Your task to perform on an android device: Show me popular videos on Youtube Image 0: 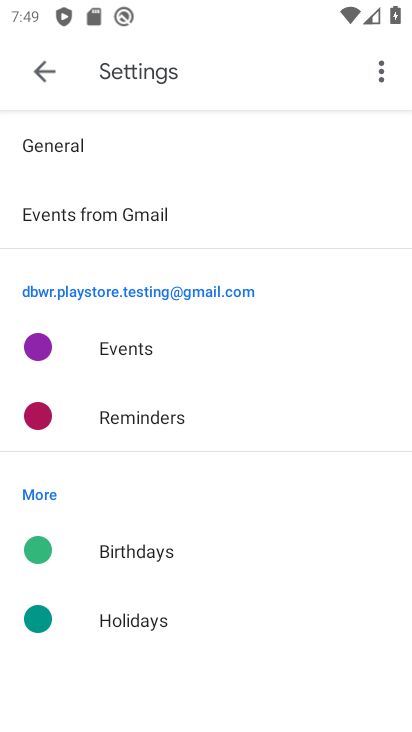
Step 0: press home button
Your task to perform on an android device: Show me popular videos on Youtube Image 1: 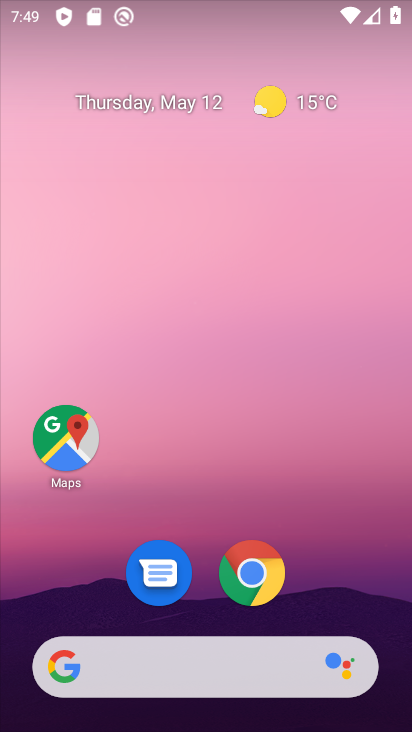
Step 1: drag from (316, 582) to (169, 14)
Your task to perform on an android device: Show me popular videos on Youtube Image 2: 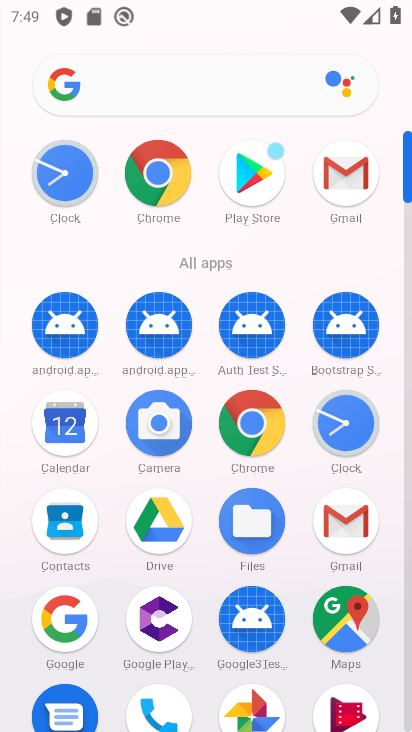
Step 2: click (408, 709)
Your task to perform on an android device: Show me popular videos on Youtube Image 3: 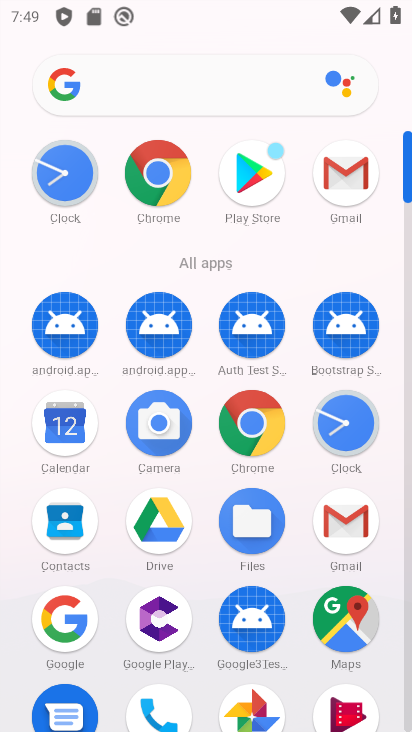
Step 3: click (408, 709)
Your task to perform on an android device: Show me popular videos on Youtube Image 4: 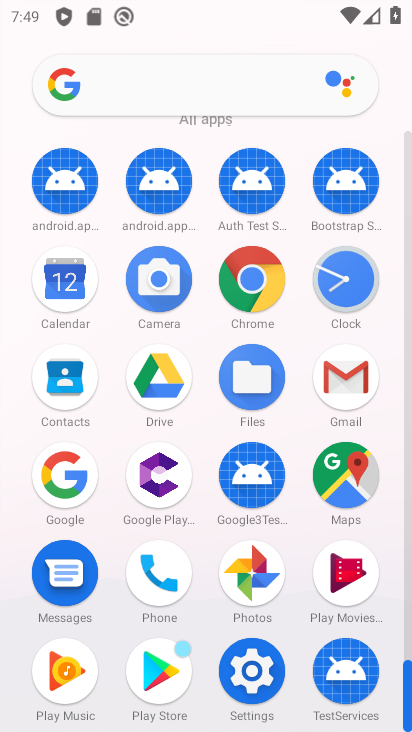
Step 4: click (408, 709)
Your task to perform on an android device: Show me popular videos on Youtube Image 5: 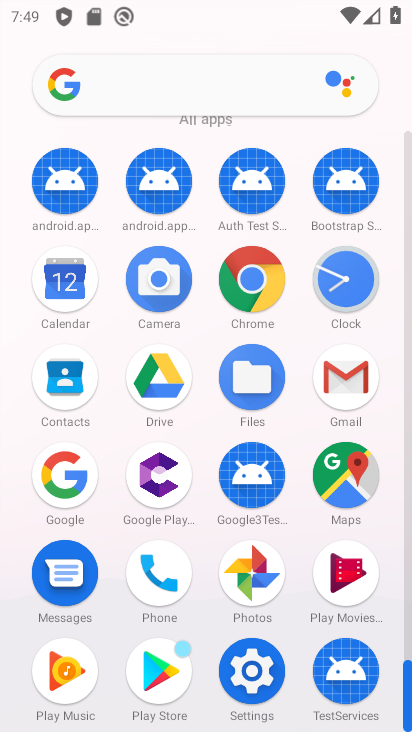
Step 5: click (408, 709)
Your task to perform on an android device: Show me popular videos on Youtube Image 6: 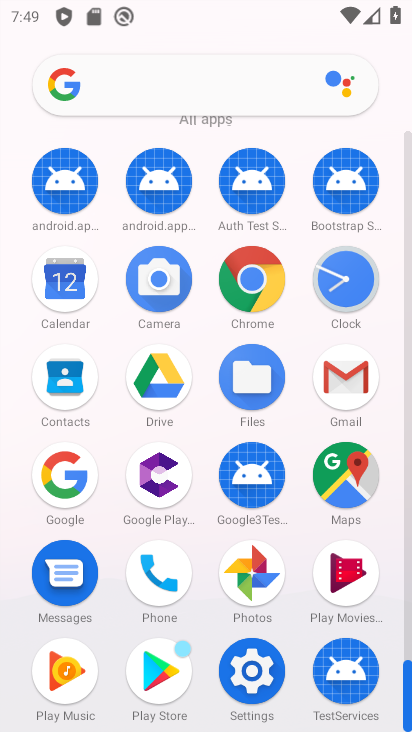
Step 6: drag from (289, 624) to (226, 246)
Your task to perform on an android device: Show me popular videos on Youtube Image 7: 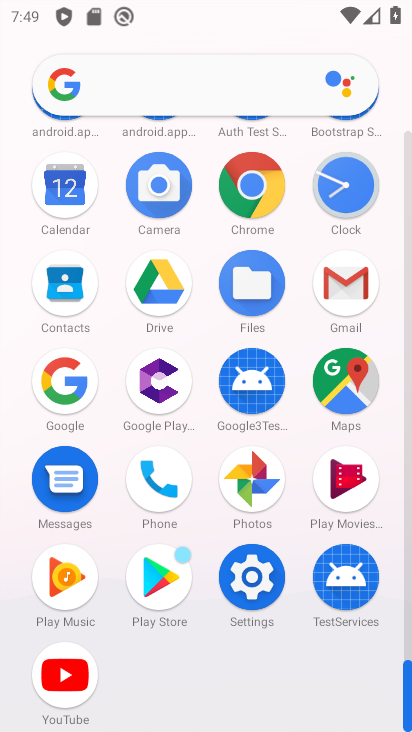
Step 7: click (63, 678)
Your task to perform on an android device: Show me popular videos on Youtube Image 8: 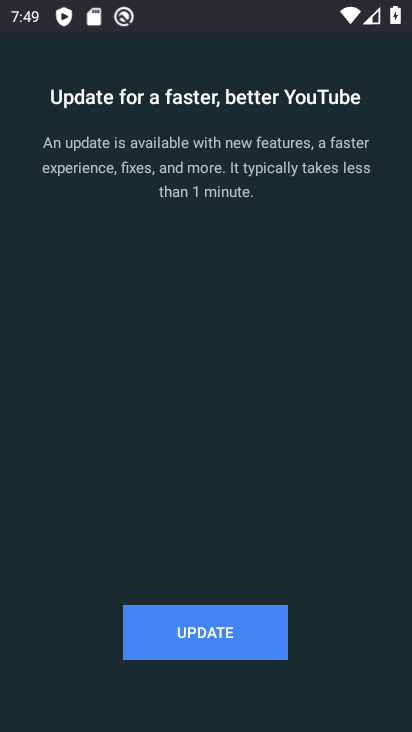
Step 8: click (253, 630)
Your task to perform on an android device: Show me popular videos on Youtube Image 9: 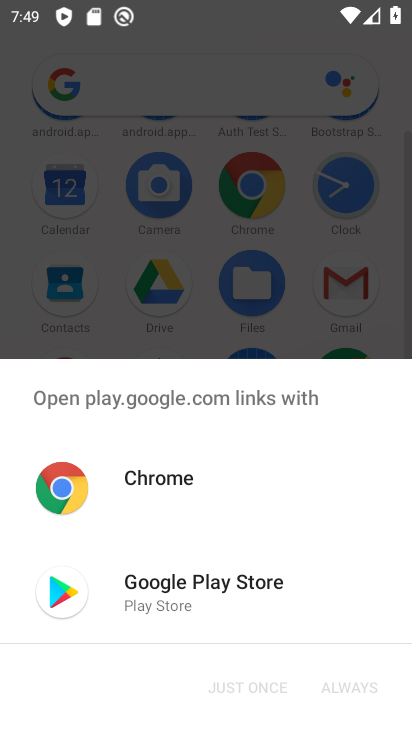
Step 9: click (153, 583)
Your task to perform on an android device: Show me popular videos on Youtube Image 10: 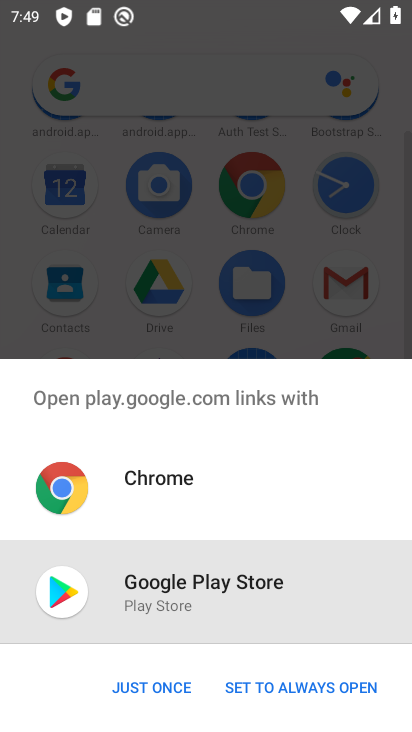
Step 10: click (161, 687)
Your task to perform on an android device: Show me popular videos on Youtube Image 11: 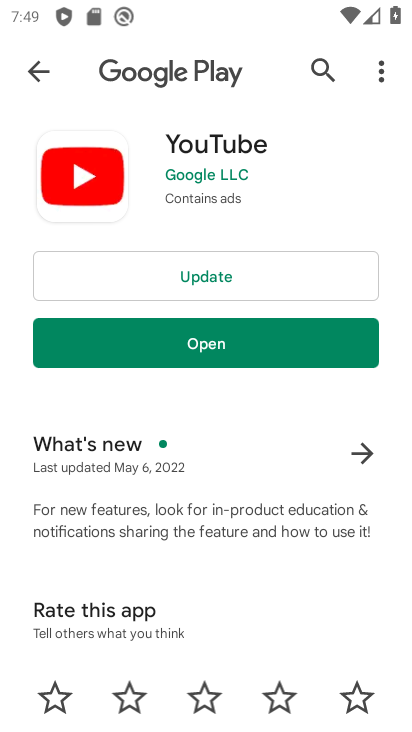
Step 11: click (189, 264)
Your task to perform on an android device: Show me popular videos on Youtube Image 12: 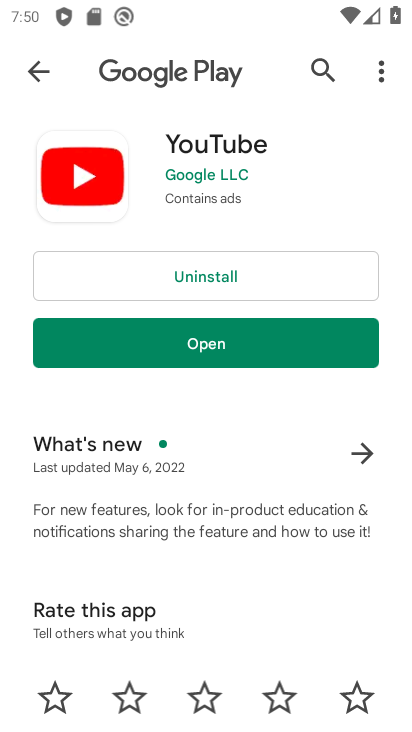
Step 12: click (206, 347)
Your task to perform on an android device: Show me popular videos on Youtube Image 13: 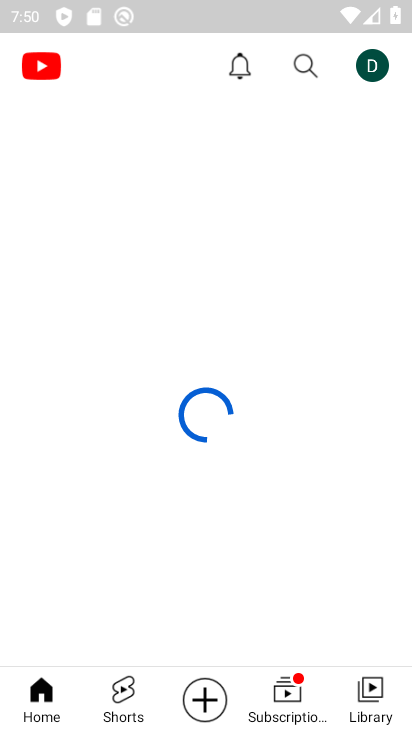
Step 13: click (154, 694)
Your task to perform on an android device: Show me popular videos on Youtube Image 14: 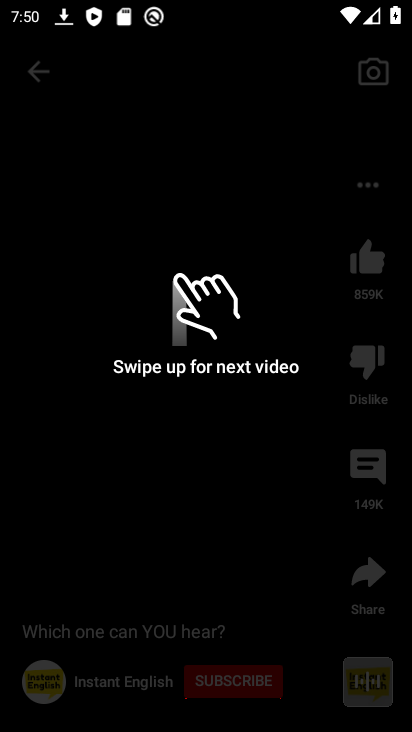
Step 14: task complete